Your task to perform on an android device: allow notifications from all sites in the chrome app Image 0: 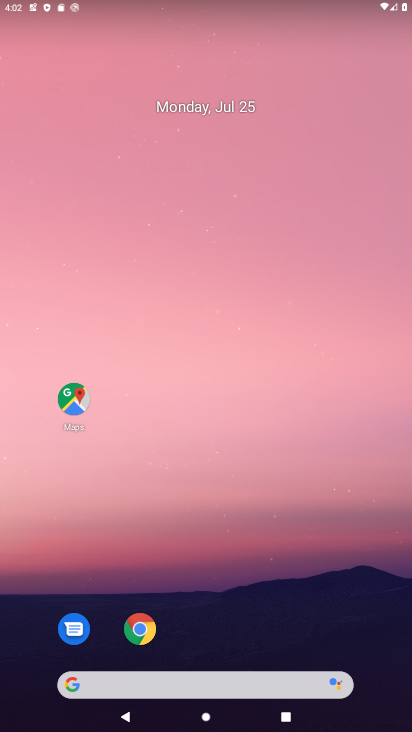
Step 0: drag from (189, 670) to (278, 97)
Your task to perform on an android device: allow notifications from all sites in the chrome app Image 1: 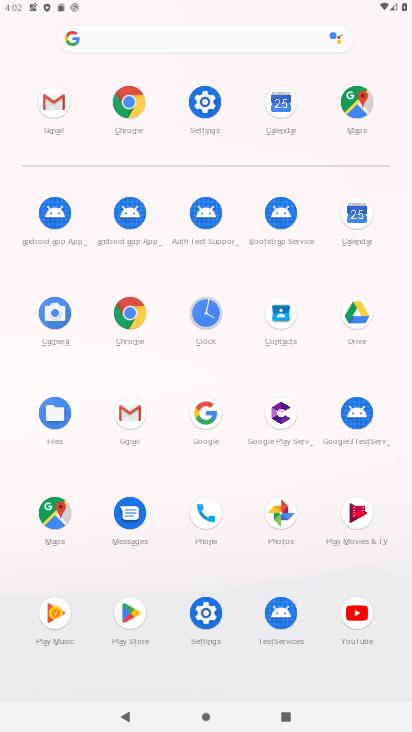
Step 1: click (122, 316)
Your task to perform on an android device: allow notifications from all sites in the chrome app Image 2: 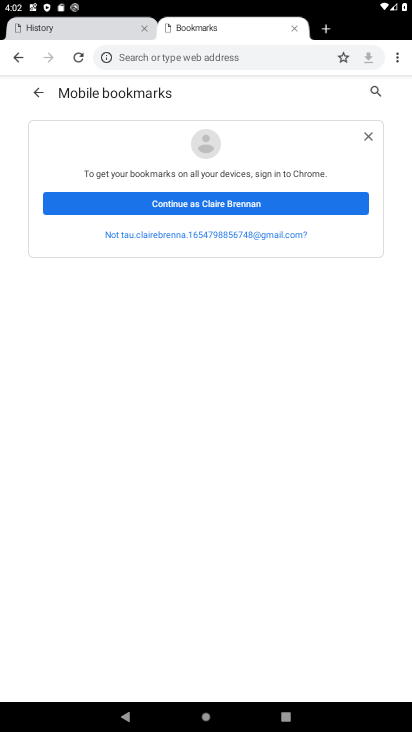
Step 2: drag from (402, 56) to (310, 267)
Your task to perform on an android device: allow notifications from all sites in the chrome app Image 3: 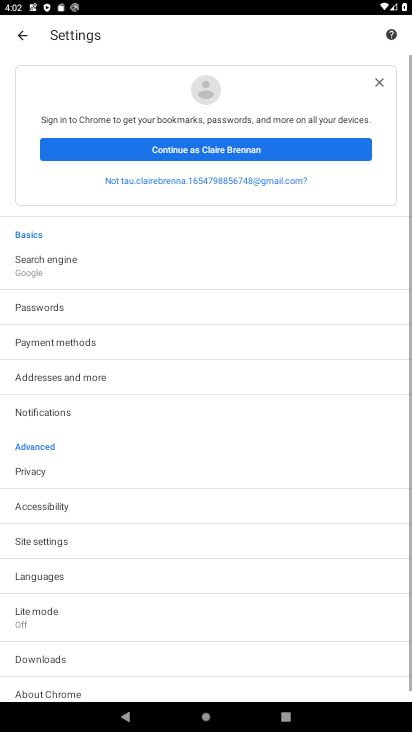
Step 3: click (56, 417)
Your task to perform on an android device: allow notifications from all sites in the chrome app Image 4: 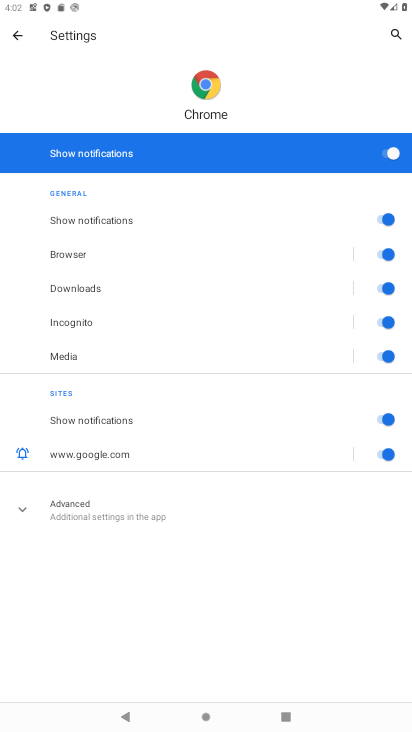
Step 4: click (110, 511)
Your task to perform on an android device: allow notifications from all sites in the chrome app Image 5: 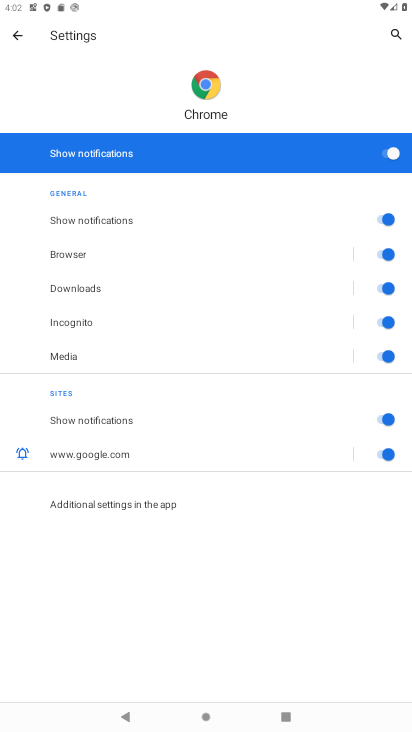
Step 5: task complete